Your task to perform on an android device: turn off priority inbox in the gmail app Image 0: 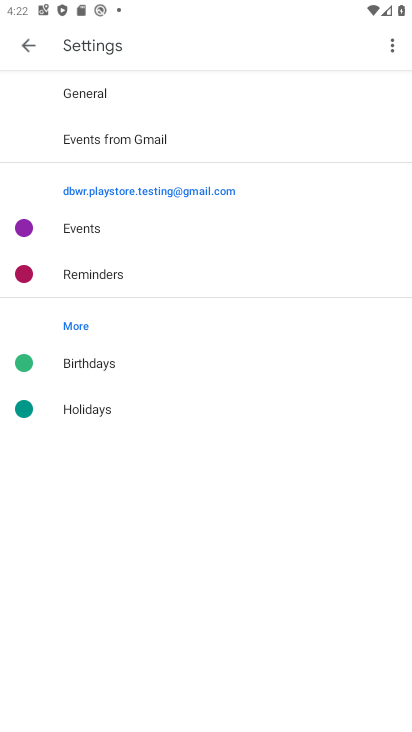
Step 0: press back button
Your task to perform on an android device: turn off priority inbox in the gmail app Image 1: 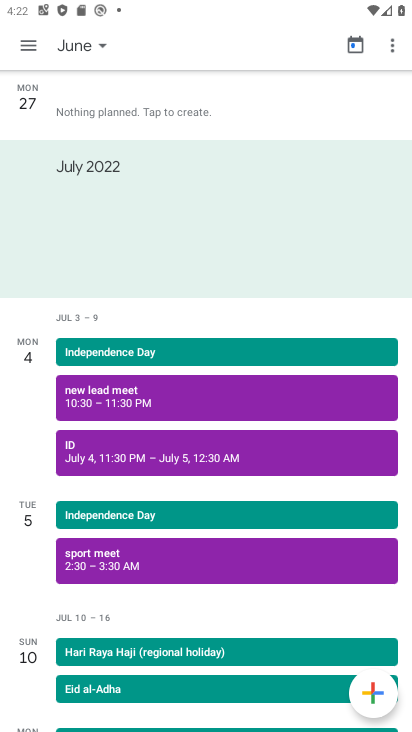
Step 1: press back button
Your task to perform on an android device: turn off priority inbox in the gmail app Image 2: 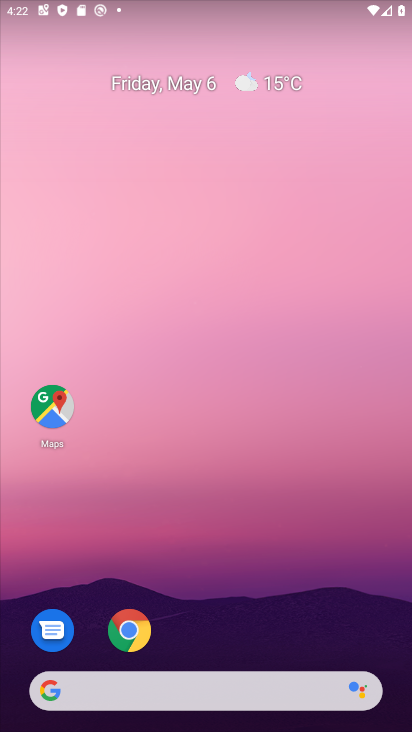
Step 2: drag from (226, 541) to (317, 11)
Your task to perform on an android device: turn off priority inbox in the gmail app Image 3: 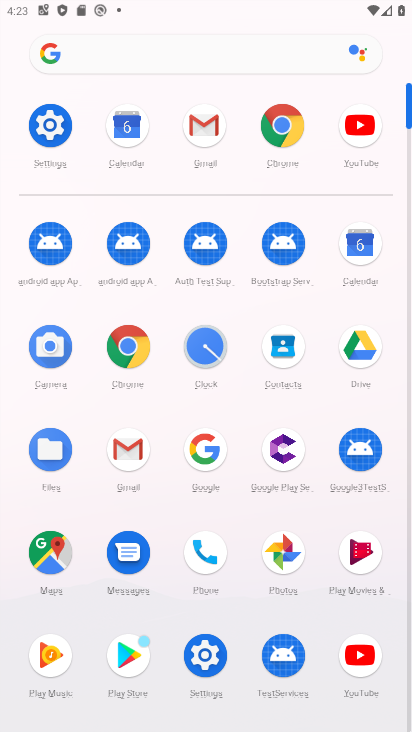
Step 3: click (210, 121)
Your task to perform on an android device: turn off priority inbox in the gmail app Image 4: 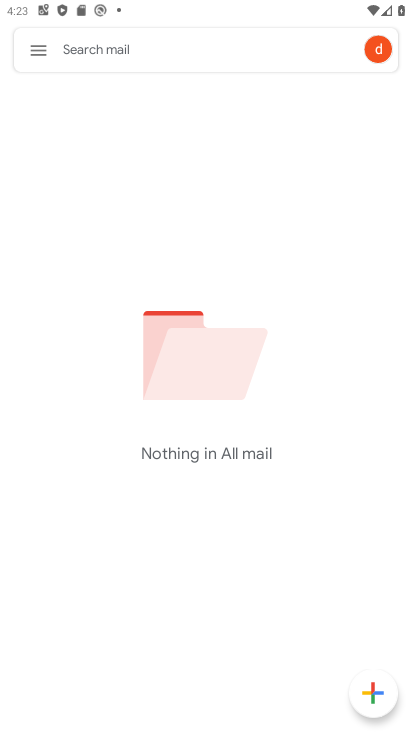
Step 4: click (35, 49)
Your task to perform on an android device: turn off priority inbox in the gmail app Image 5: 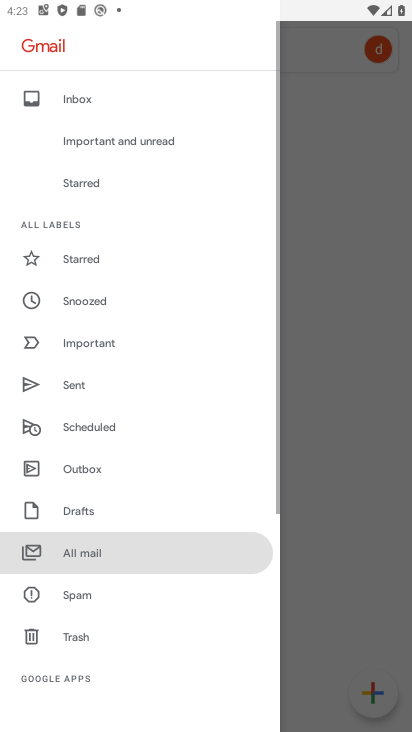
Step 5: drag from (111, 639) to (187, 127)
Your task to perform on an android device: turn off priority inbox in the gmail app Image 6: 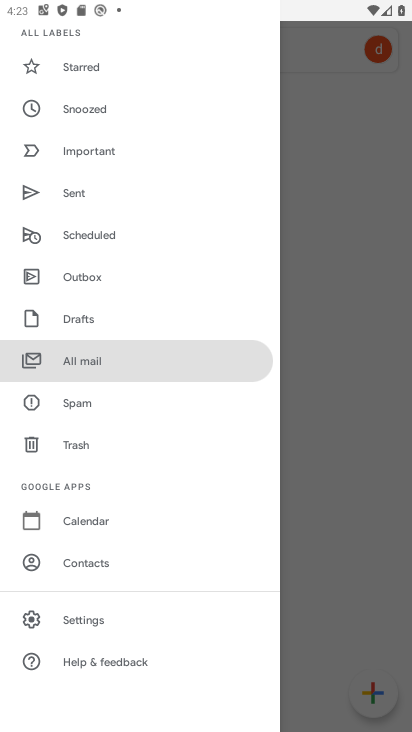
Step 6: click (70, 618)
Your task to perform on an android device: turn off priority inbox in the gmail app Image 7: 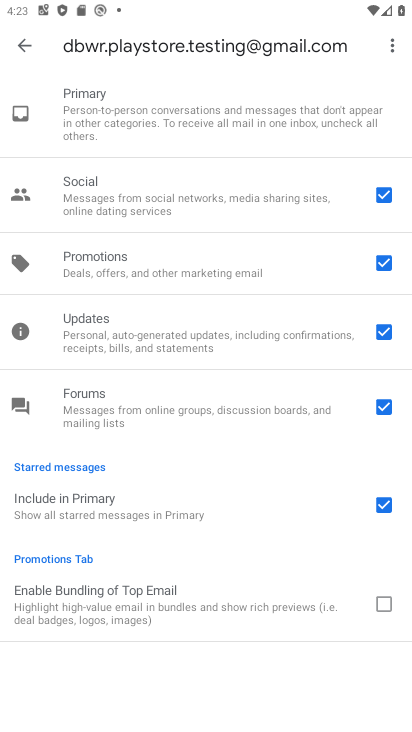
Step 7: drag from (171, 551) to (275, 16)
Your task to perform on an android device: turn off priority inbox in the gmail app Image 8: 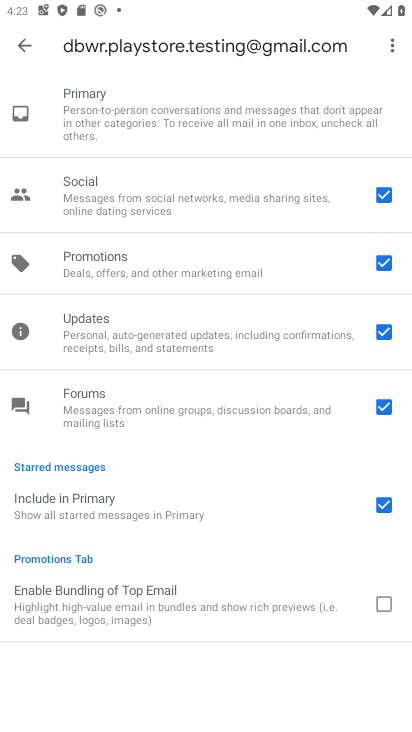
Step 8: drag from (217, 218) to (167, 661)
Your task to perform on an android device: turn off priority inbox in the gmail app Image 9: 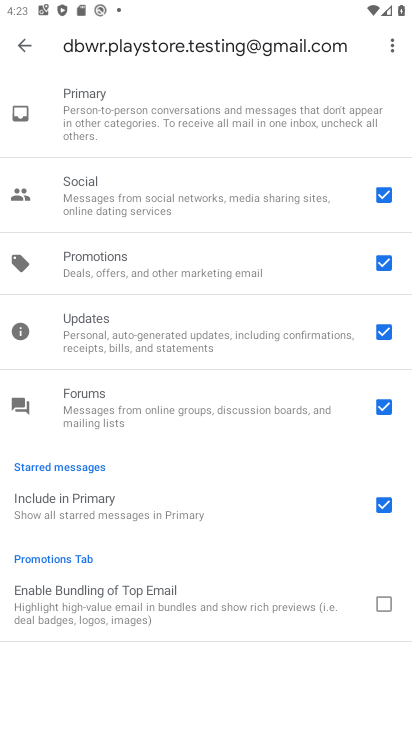
Step 9: click (14, 25)
Your task to perform on an android device: turn off priority inbox in the gmail app Image 10: 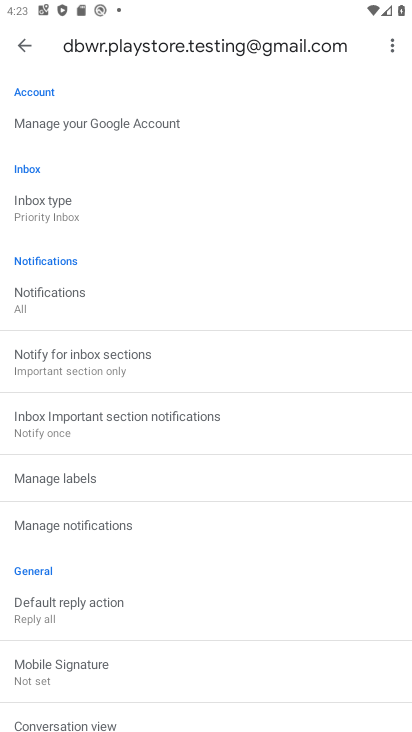
Step 10: click (73, 205)
Your task to perform on an android device: turn off priority inbox in the gmail app Image 11: 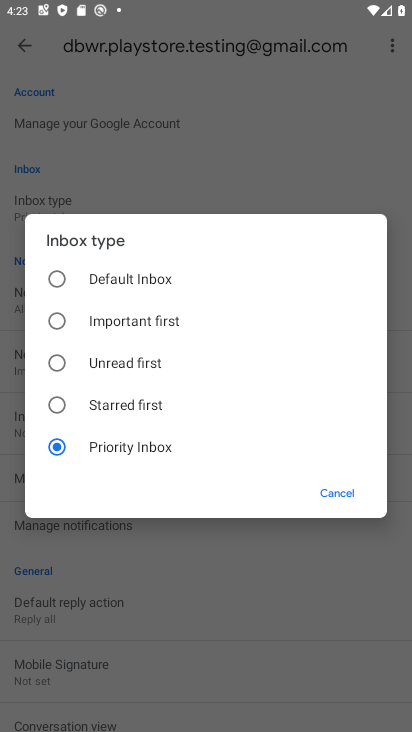
Step 11: click (47, 277)
Your task to perform on an android device: turn off priority inbox in the gmail app Image 12: 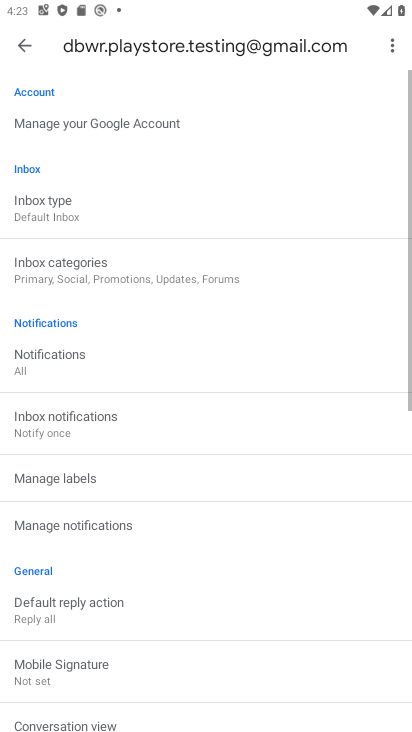
Step 12: task complete